Your task to perform on an android device: visit the assistant section in the google photos Image 0: 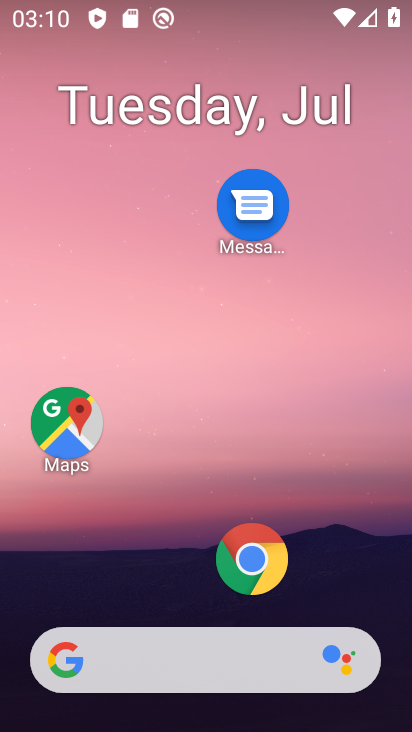
Step 0: drag from (162, 608) to (224, 70)
Your task to perform on an android device: visit the assistant section in the google photos Image 1: 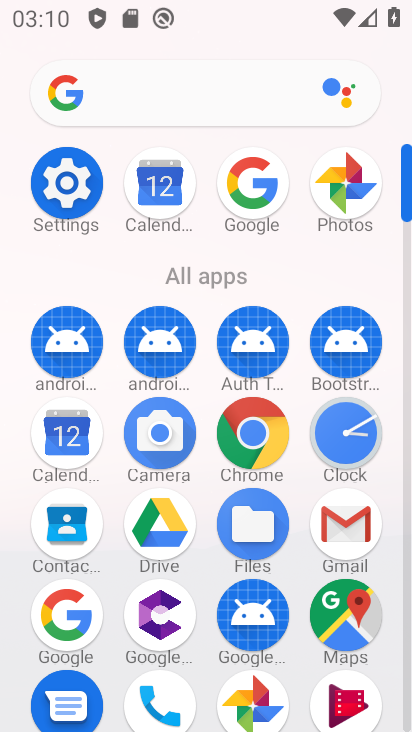
Step 1: click (246, 695)
Your task to perform on an android device: visit the assistant section in the google photos Image 2: 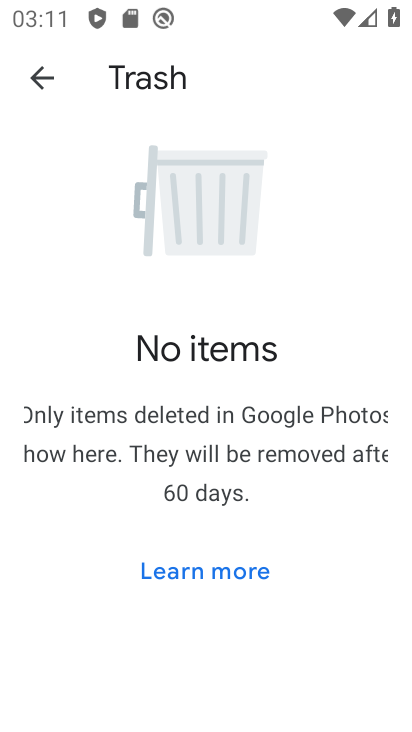
Step 2: click (37, 61)
Your task to perform on an android device: visit the assistant section in the google photos Image 3: 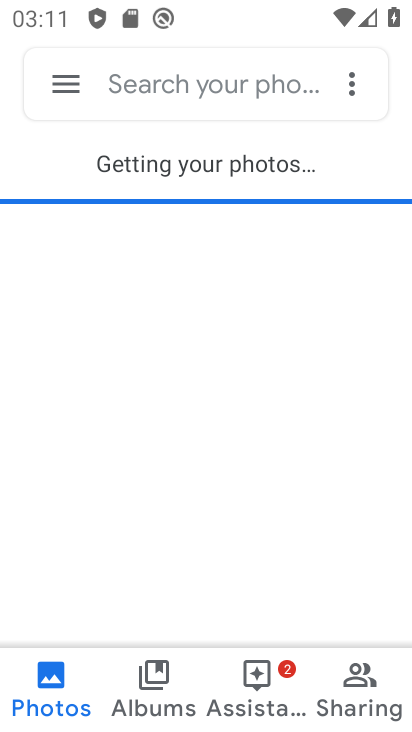
Step 3: click (254, 693)
Your task to perform on an android device: visit the assistant section in the google photos Image 4: 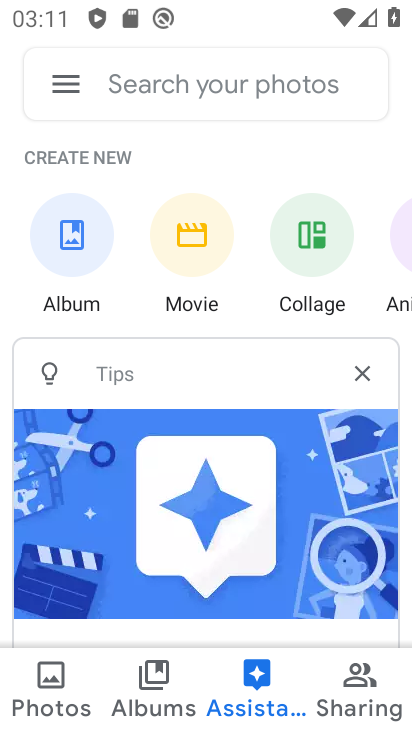
Step 4: task complete